Your task to perform on an android device: Go to display settings Image 0: 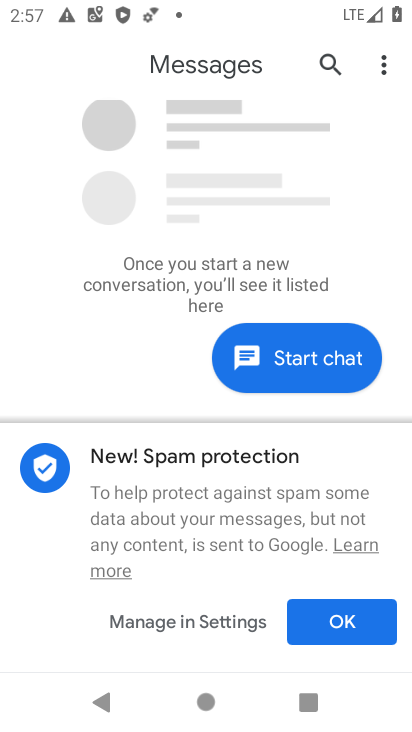
Step 0: press home button
Your task to perform on an android device: Go to display settings Image 1: 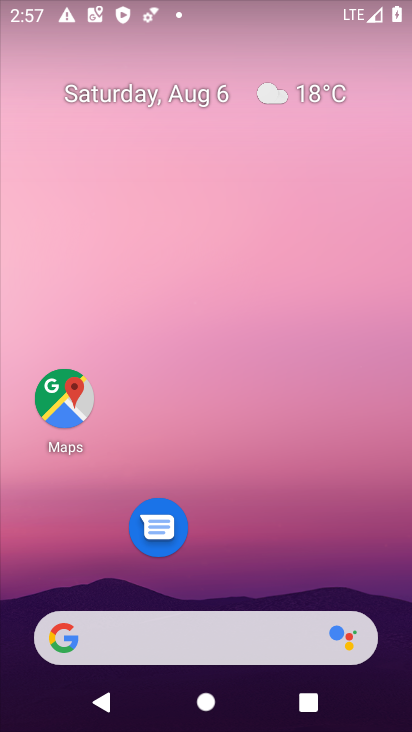
Step 1: drag from (282, 546) to (296, 91)
Your task to perform on an android device: Go to display settings Image 2: 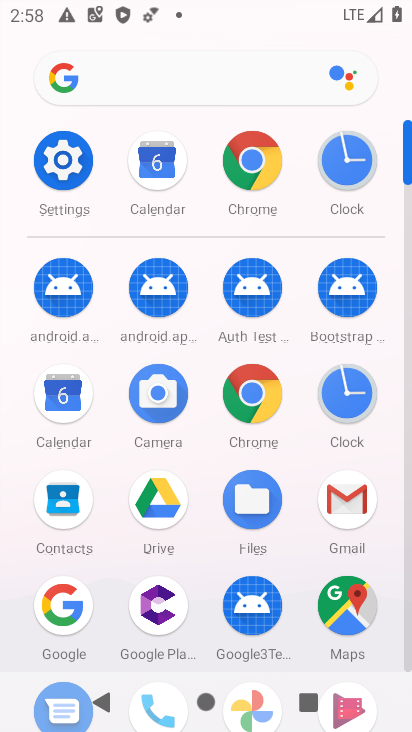
Step 2: click (56, 164)
Your task to perform on an android device: Go to display settings Image 3: 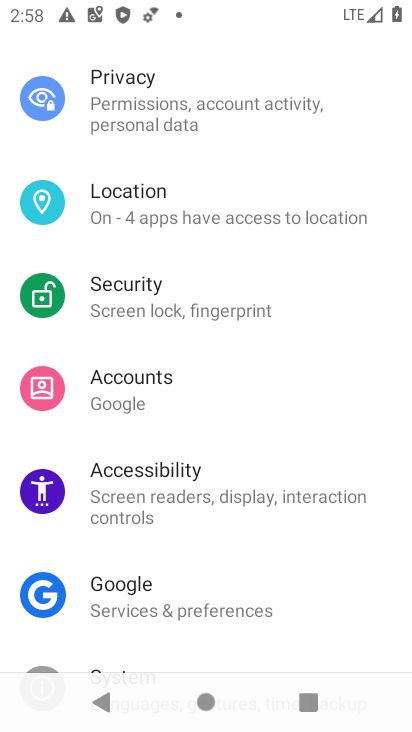
Step 3: drag from (181, 141) to (165, 584)
Your task to perform on an android device: Go to display settings Image 4: 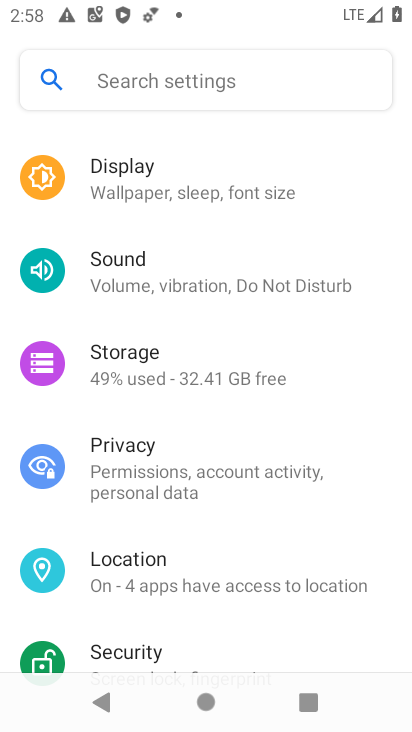
Step 4: click (169, 204)
Your task to perform on an android device: Go to display settings Image 5: 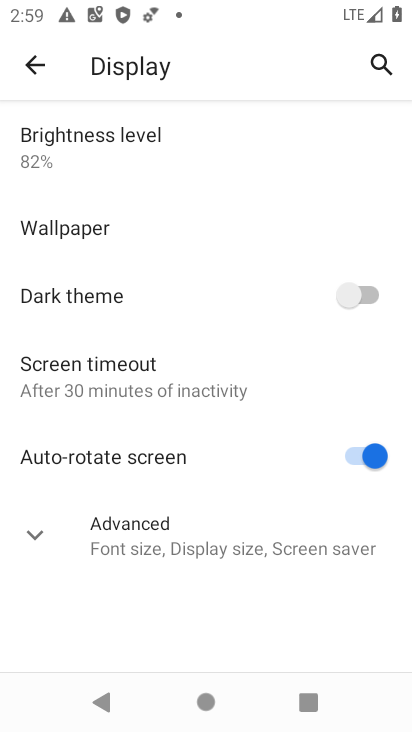
Step 5: task complete